Your task to perform on an android device: Go to settings Image 0: 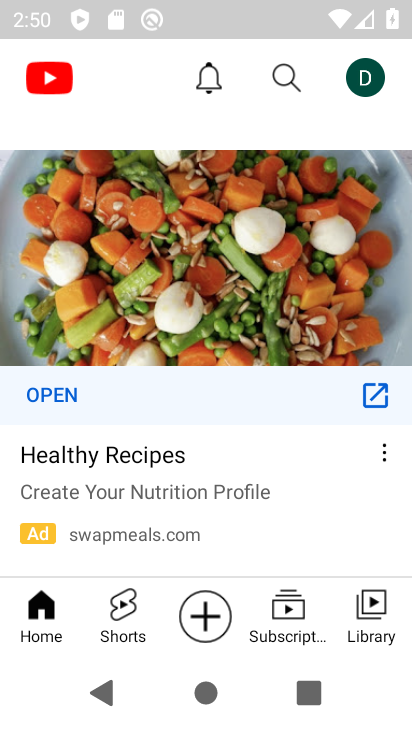
Step 0: press home button
Your task to perform on an android device: Go to settings Image 1: 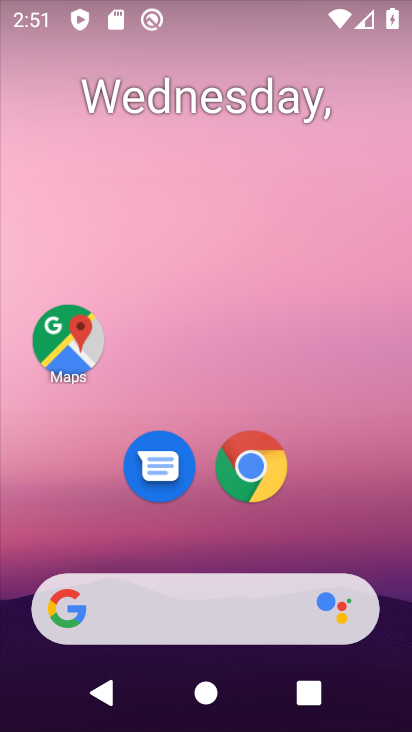
Step 1: drag from (390, 605) to (328, 277)
Your task to perform on an android device: Go to settings Image 2: 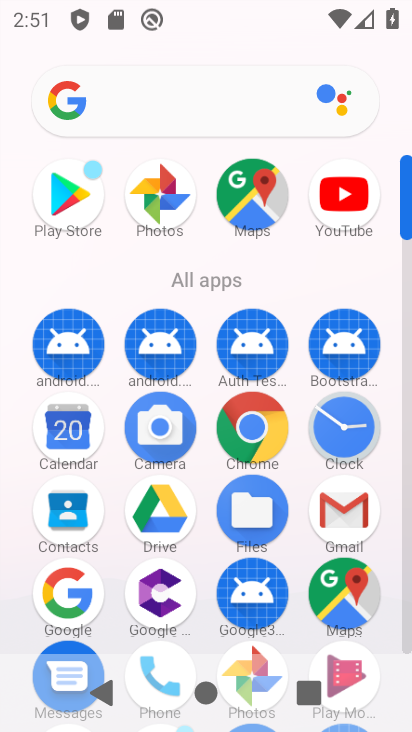
Step 2: click (408, 632)
Your task to perform on an android device: Go to settings Image 3: 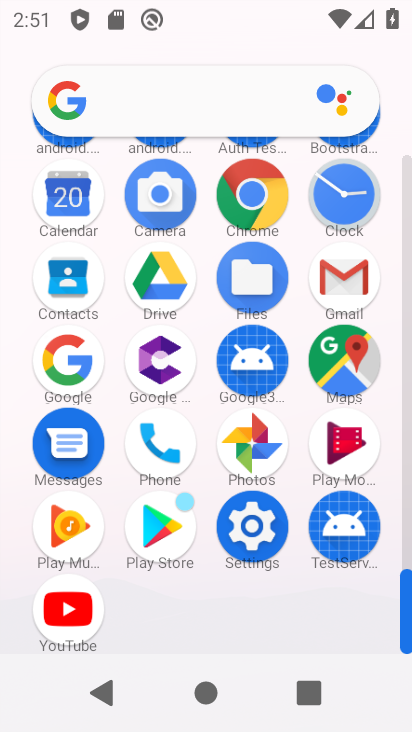
Step 3: click (255, 527)
Your task to perform on an android device: Go to settings Image 4: 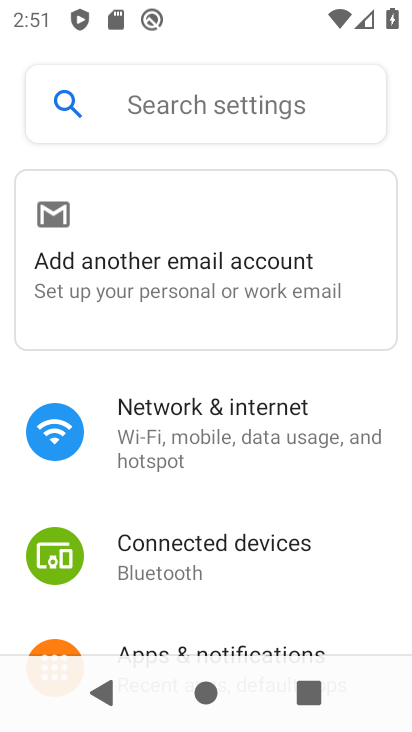
Step 4: task complete